Your task to perform on an android device: Do I have any events tomorrow? Image 0: 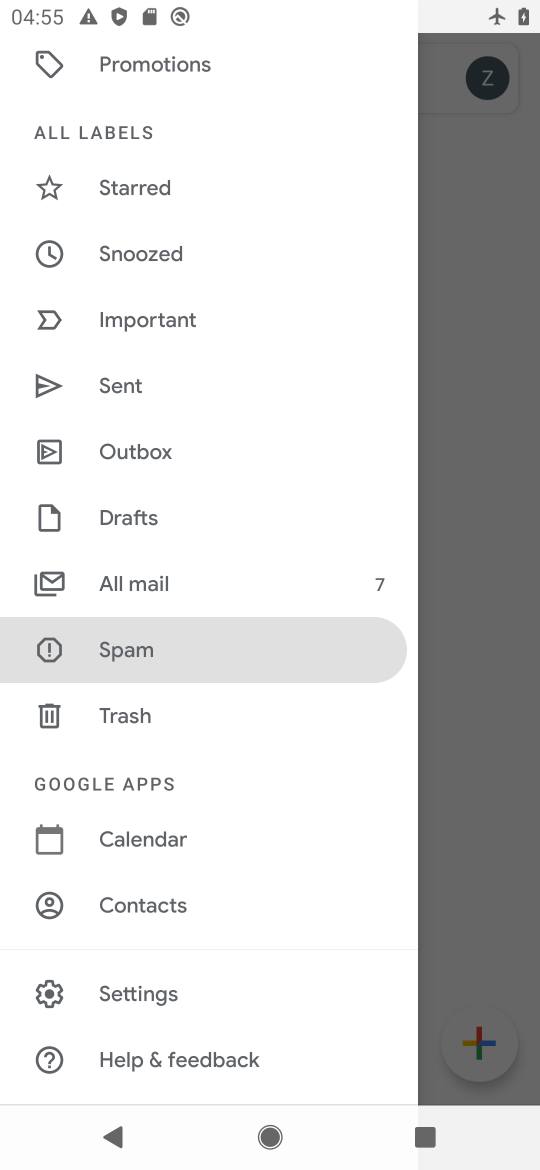
Step 0: press home button
Your task to perform on an android device: Do I have any events tomorrow? Image 1: 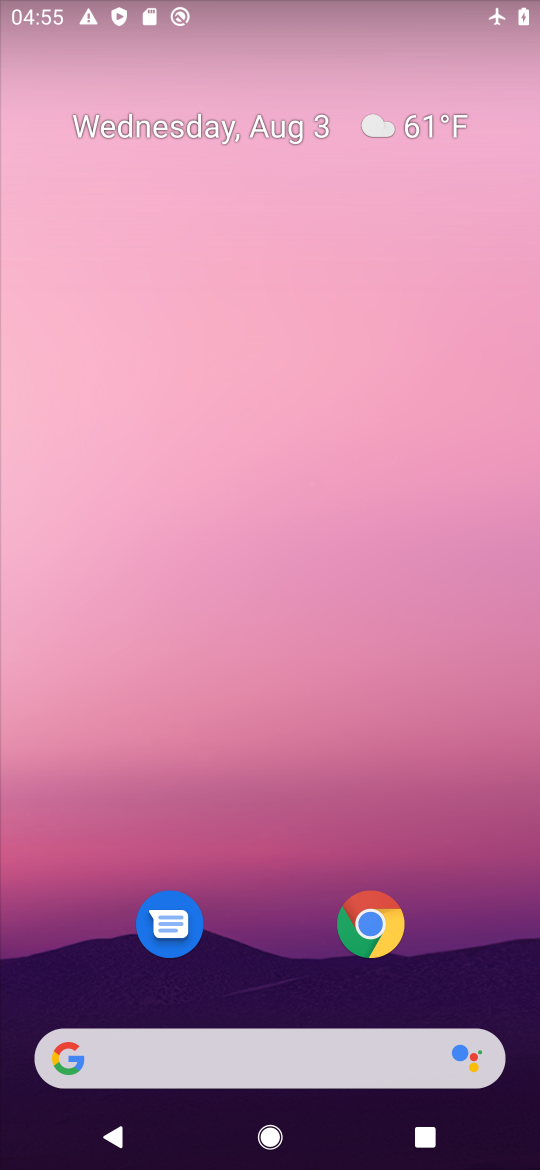
Step 1: drag from (257, 967) to (263, 371)
Your task to perform on an android device: Do I have any events tomorrow? Image 2: 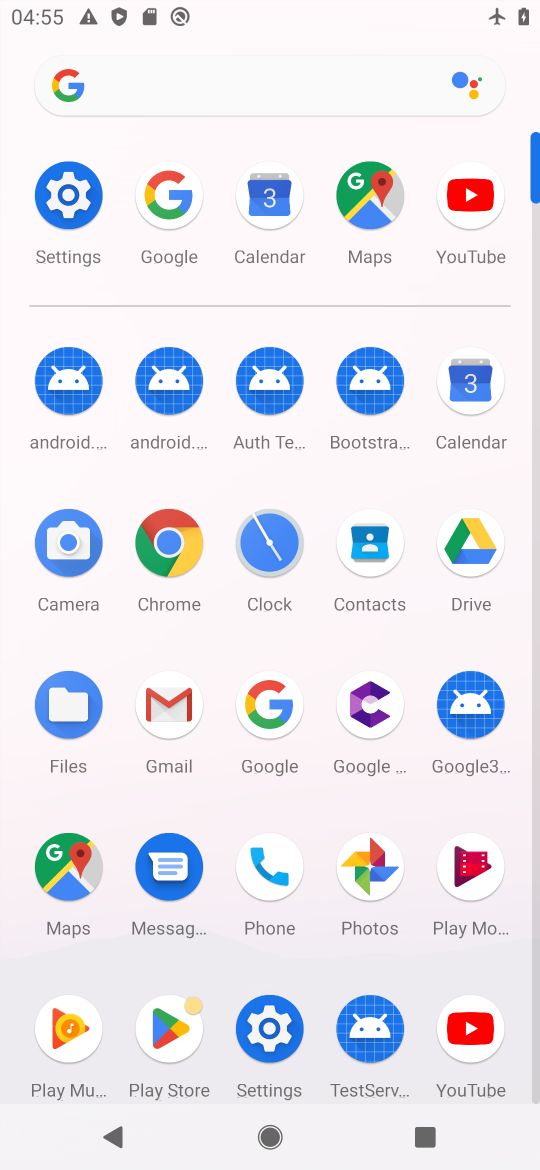
Step 2: click (457, 391)
Your task to perform on an android device: Do I have any events tomorrow? Image 3: 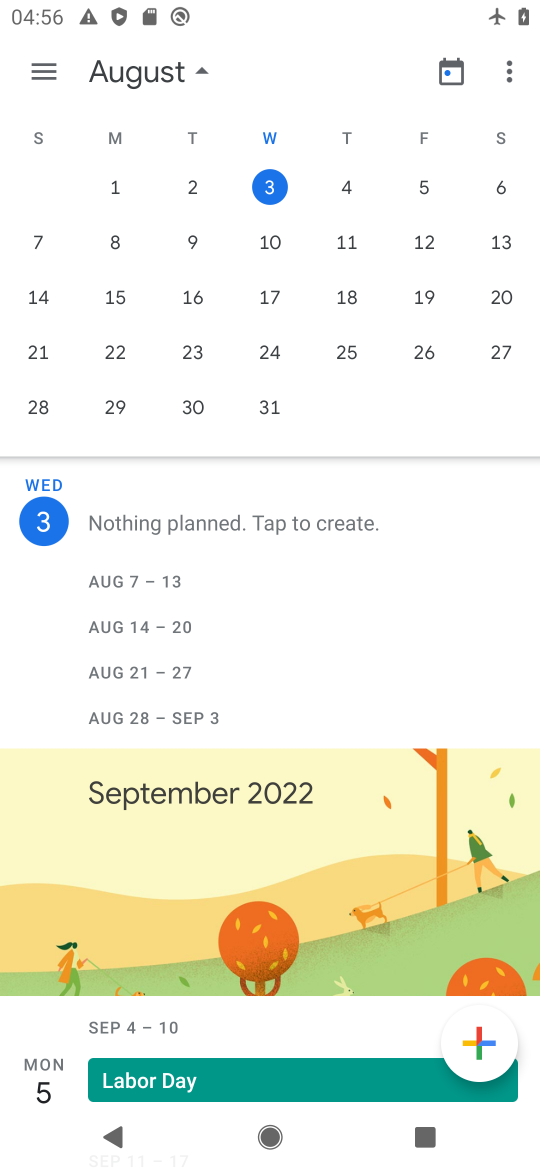
Step 3: click (345, 187)
Your task to perform on an android device: Do I have any events tomorrow? Image 4: 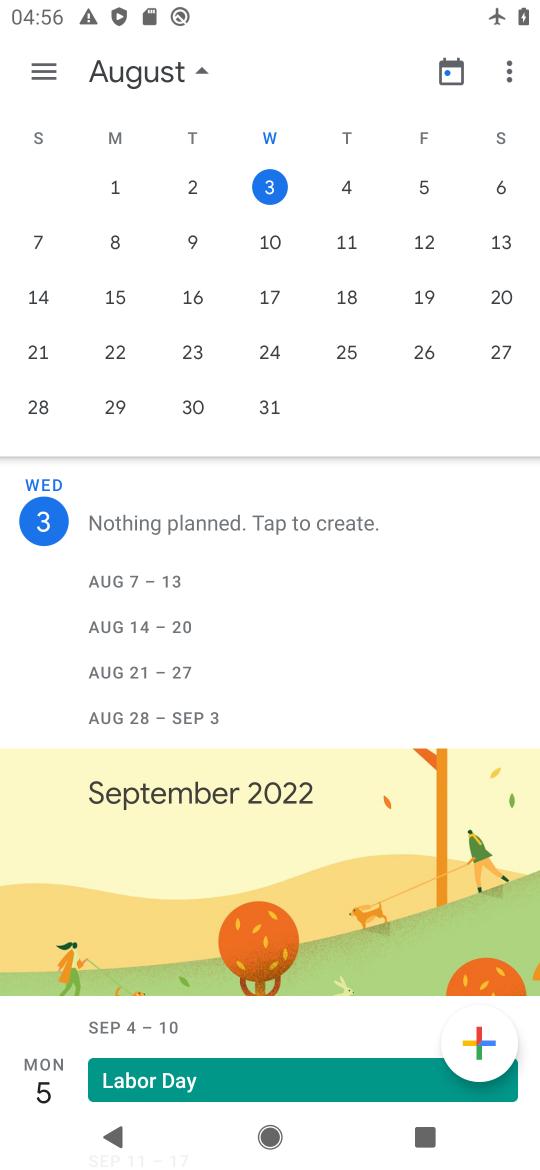
Step 4: click (327, 190)
Your task to perform on an android device: Do I have any events tomorrow? Image 5: 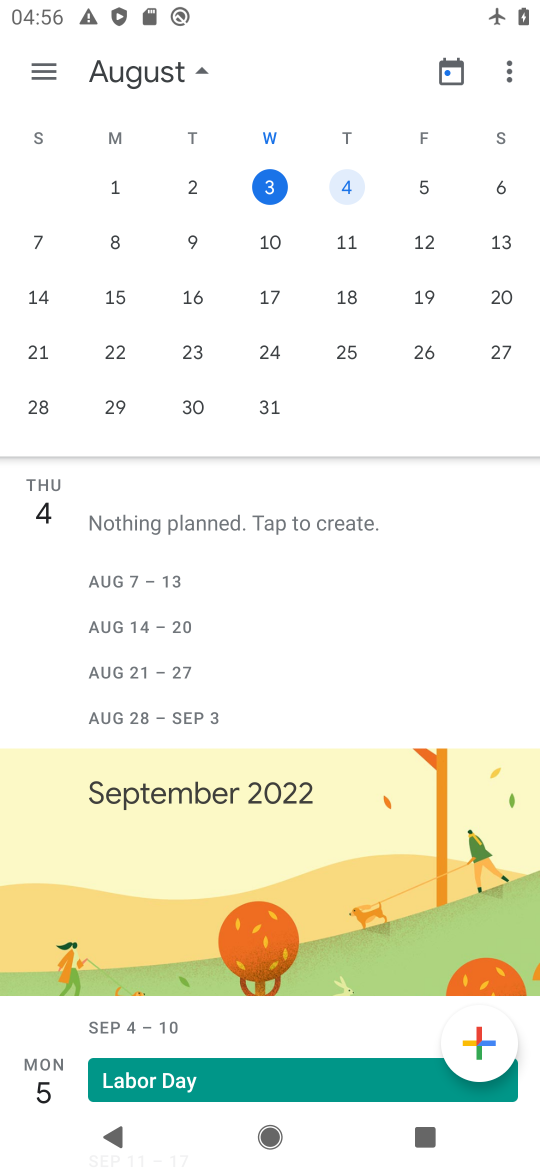
Step 5: task complete